Your task to perform on an android device: See recent photos Image 0: 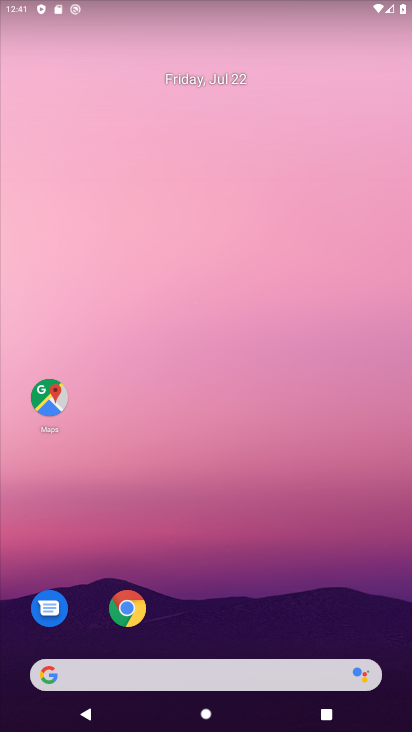
Step 0: drag from (383, 580) to (369, 127)
Your task to perform on an android device: See recent photos Image 1: 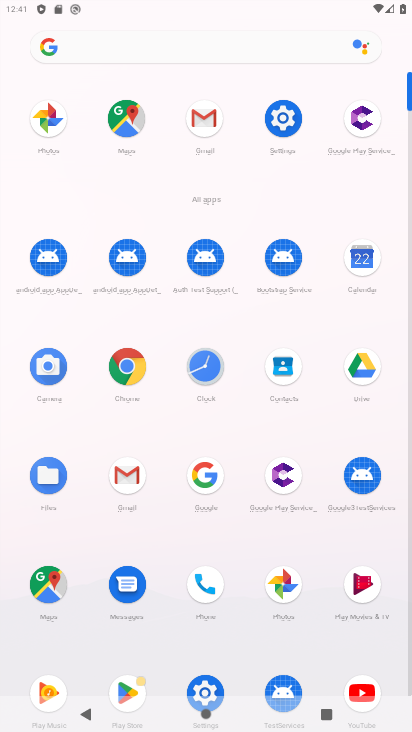
Step 1: click (278, 583)
Your task to perform on an android device: See recent photos Image 2: 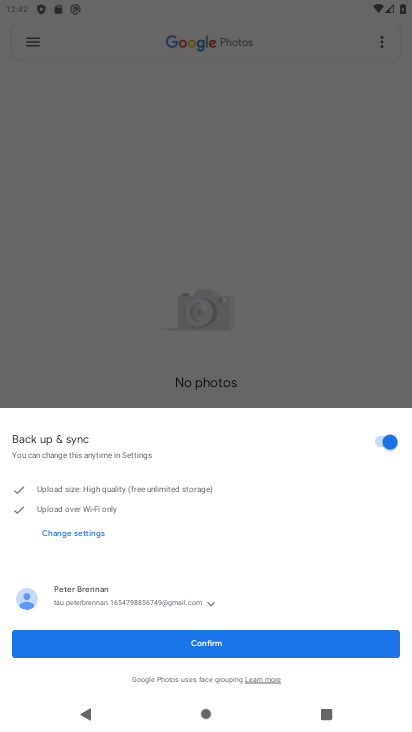
Step 2: task complete